Your task to perform on an android device: Search for 4k TVs on Best Buy. Image 0: 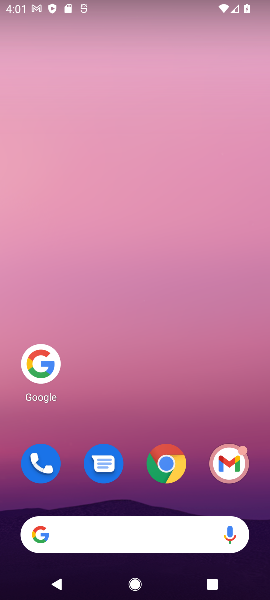
Step 0: click (36, 353)
Your task to perform on an android device: Search for 4k TVs on Best Buy. Image 1: 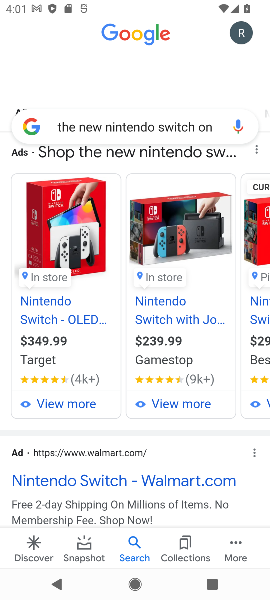
Step 1: click (201, 121)
Your task to perform on an android device: Search for 4k TVs on Best Buy. Image 2: 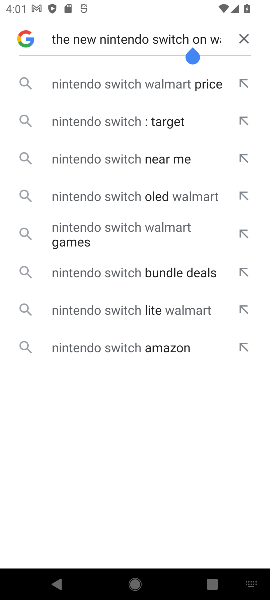
Step 2: click (240, 37)
Your task to perform on an android device: Search for 4k TVs on Best Buy. Image 3: 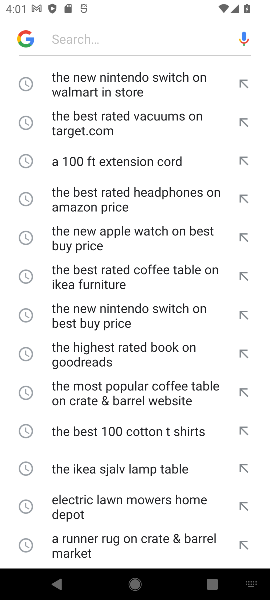
Step 3: click (118, 34)
Your task to perform on an android device: Search for 4k TVs on Best Buy. Image 4: 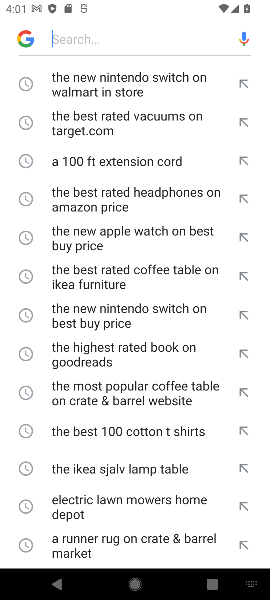
Step 4: type " 4k TVs on Best Buy "
Your task to perform on an android device: Search for 4k TVs on Best Buy. Image 5: 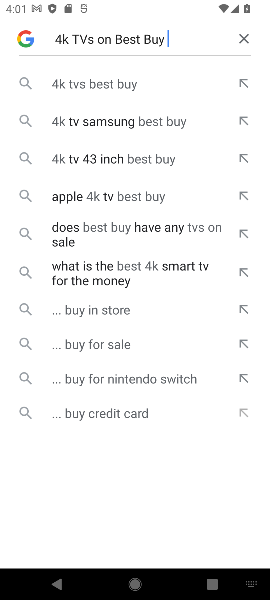
Step 5: click (80, 88)
Your task to perform on an android device: Search for 4k TVs on Best Buy. Image 6: 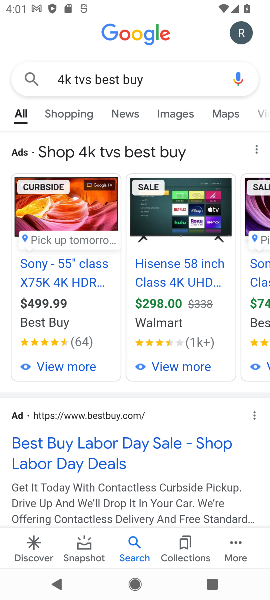
Step 6: drag from (161, 494) to (182, 312)
Your task to perform on an android device: Search for 4k TVs on Best Buy. Image 7: 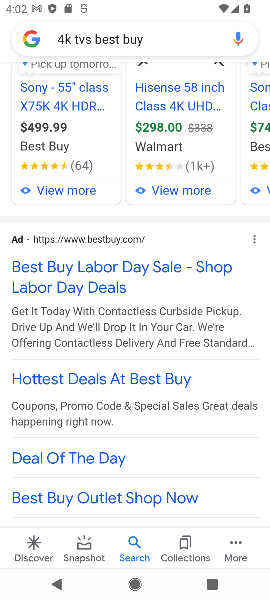
Step 7: drag from (125, 475) to (159, 172)
Your task to perform on an android device: Search for 4k TVs on Best Buy. Image 8: 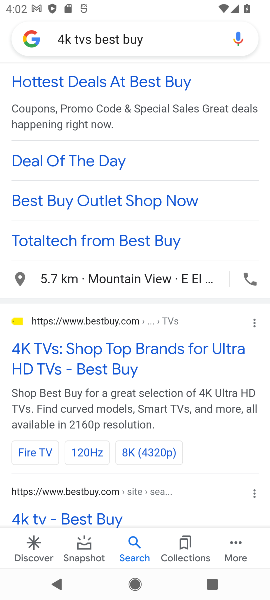
Step 8: drag from (125, 467) to (142, 289)
Your task to perform on an android device: Search for 4k TVs on Best Buy. Image 9: 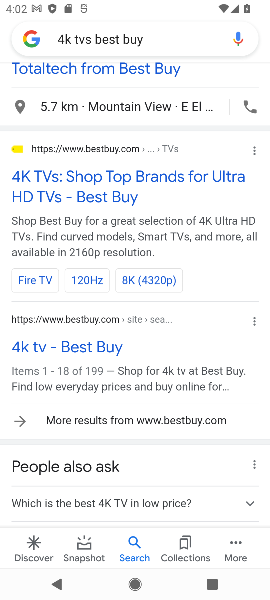
Step 9: click (87, 347)
Your task to perform on an android device: Search for 4k TVs on Best Buy. Image 10: 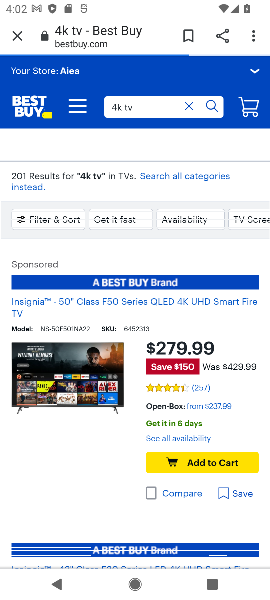
Step 10: task complete